Your task to perform on an android device: Show me popular videos on Youtube Image 0: 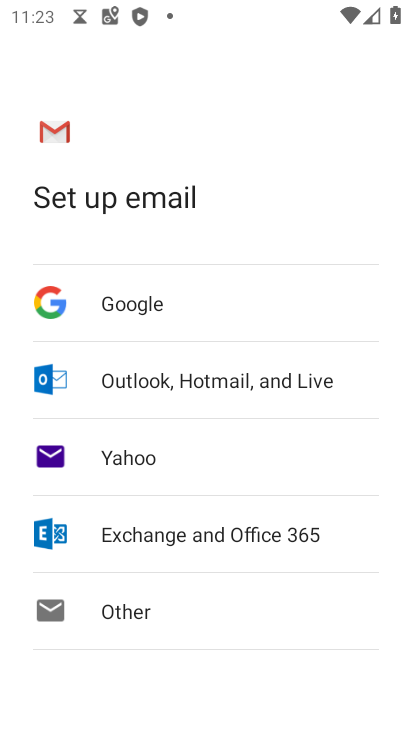
Step 0: press home button
Your task to perform on an android device: Show me popular videos on Youtube Image 1: 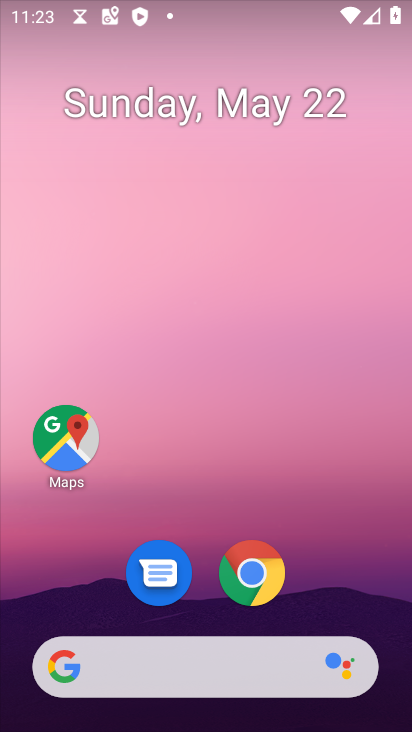
Step 1: drag from (178, 681) to (320, 160)
Your task to perform on an android device: Show me popular videos on Youtube Image 2: 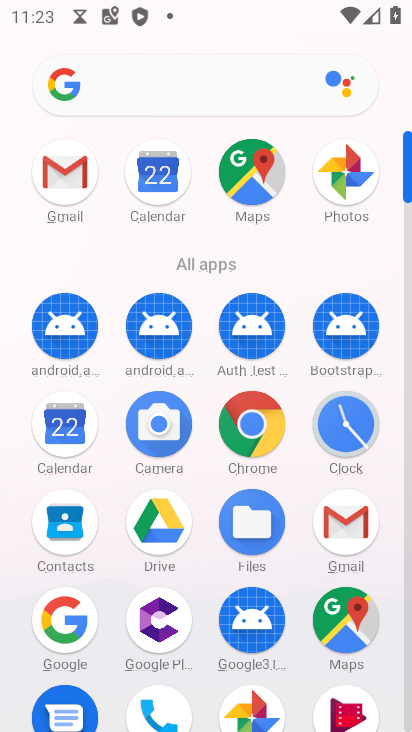
Step 2: drag from (187, 641) to (352, 221)
Your task to perform on an android device: Show me popular videos on Youtube Image 3: 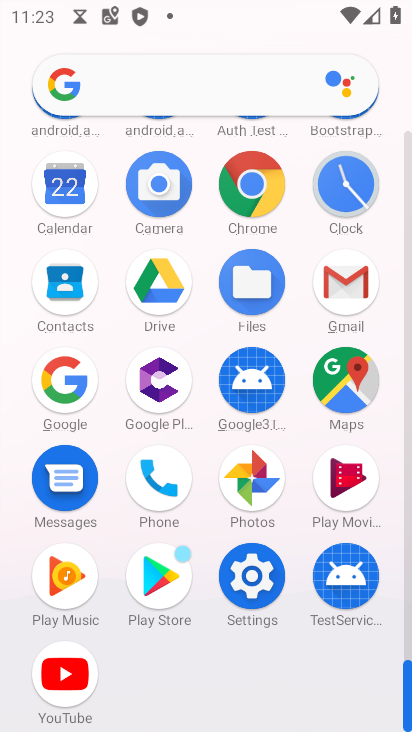
Step 3: click (70, 677)
Your task to perform on an android device: Show me popular videos on Youtube Image 4: 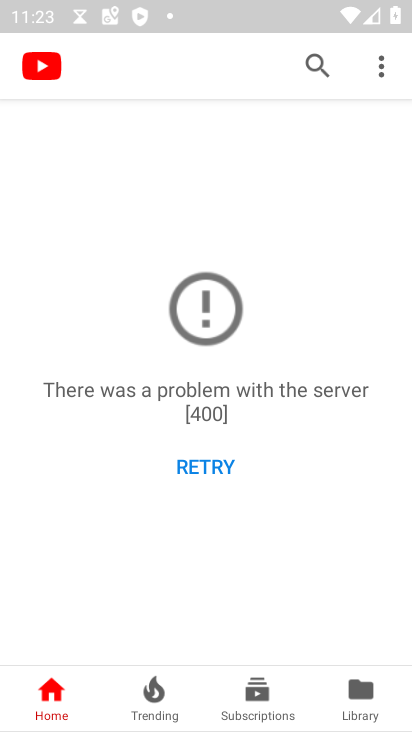
Step 4: click (195, 473)
Your task to perform on an android device: Show me popular videos on Youtube Image 5: 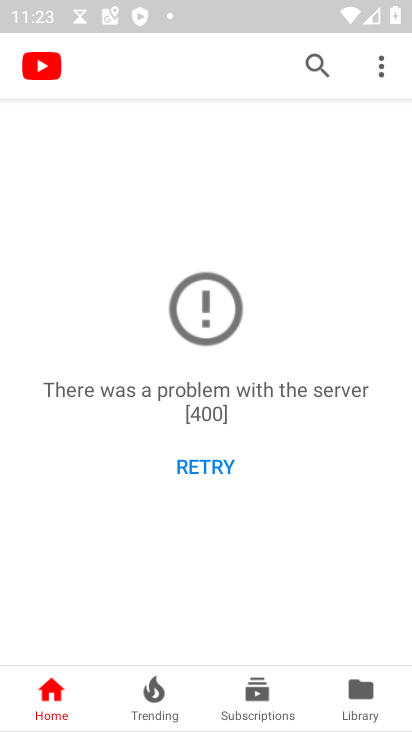
Step 5: click (208, 453)
Your task to perform on an android device: Show me popular videos on Youtube Image 6: 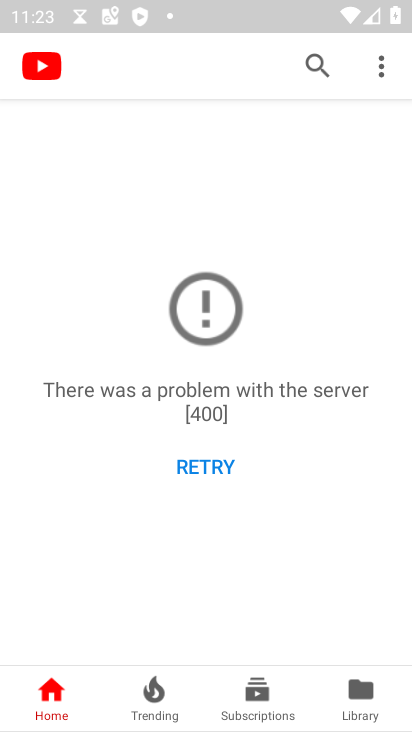
Step 6: click (208, 465)
Your task to perform on an android device: Show me popular videos on Youtube Image 7: 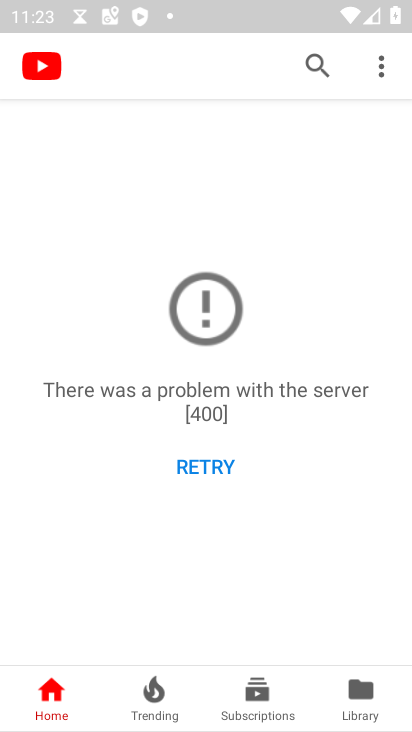
Step 7: task complete